Your task to perform on an android device: turn vacation reply on in the gmail app Image 0: 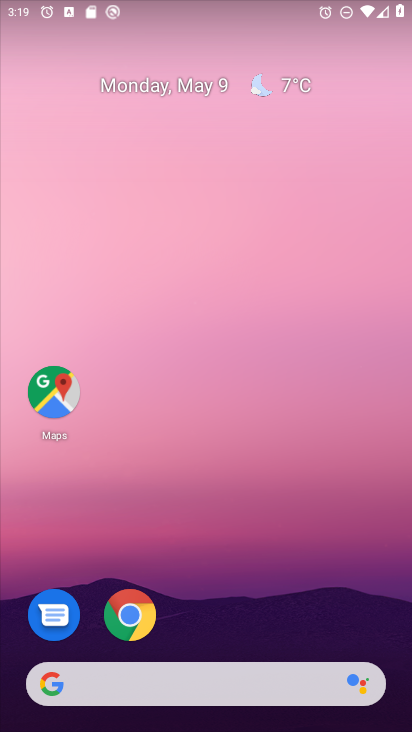
Step 0: drag from (366, 623) to (356, 62)
Your task to perform on an android device: turn vacation reply on in the gmail app Image 1: 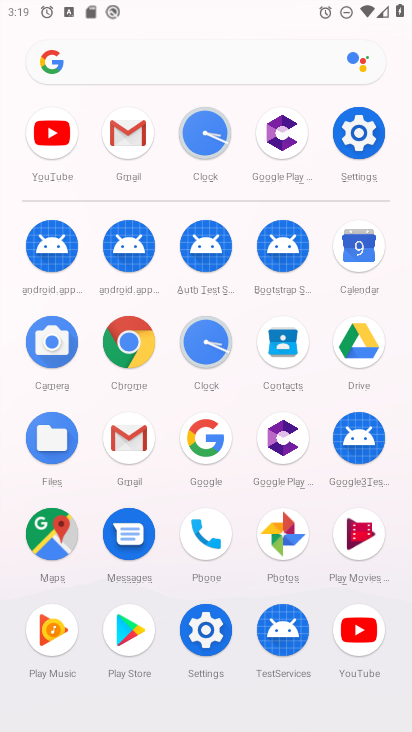
Step 1: click (128, 438)
Your task to perform on an android device: turn vacation reply on in the gmail app Image 2: 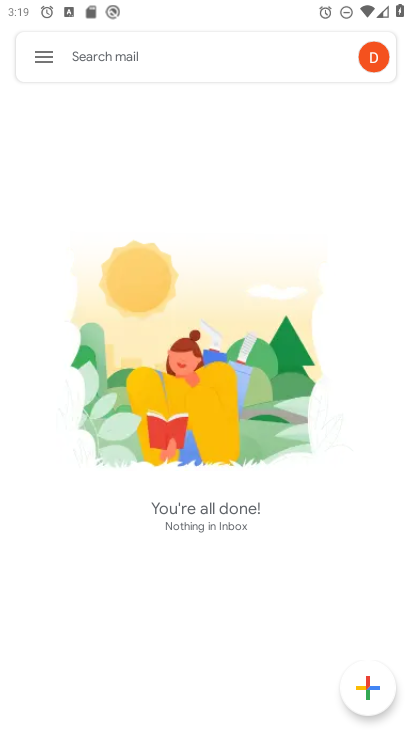
Step 2: click (36, 54)
Your task to perform on an android device: turn vacation reply on in the gmail app Image 3: 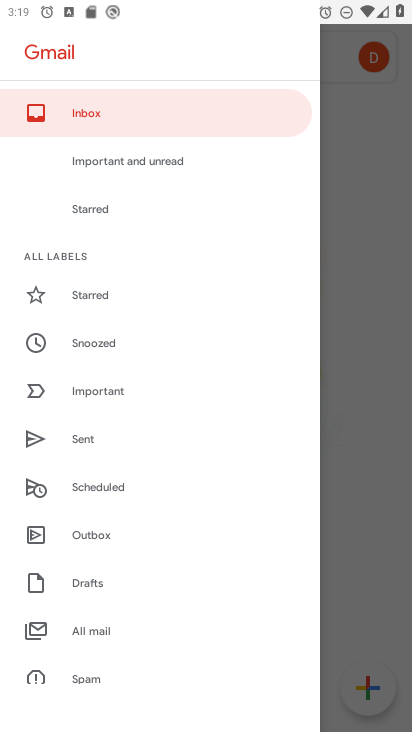
Step 3: drag from (169, 618) to (231, 261)
Your task to perform on an android device: turn vacation reply on in the gmail app Image 4: 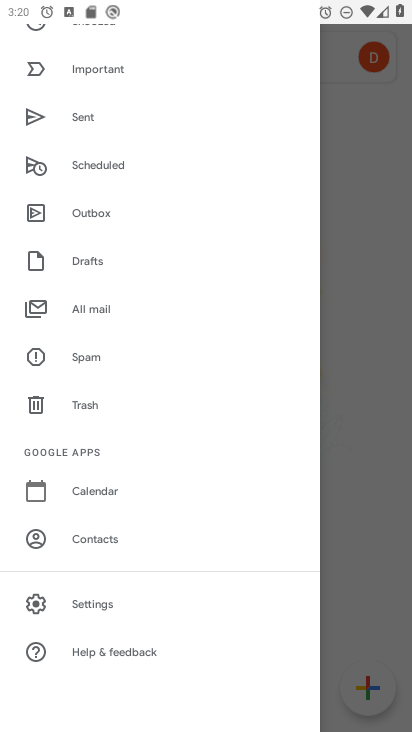
Step 4: click (72, 604)
Your task to perform on an android device: turn vacation reply on in the gmail app Image 5: 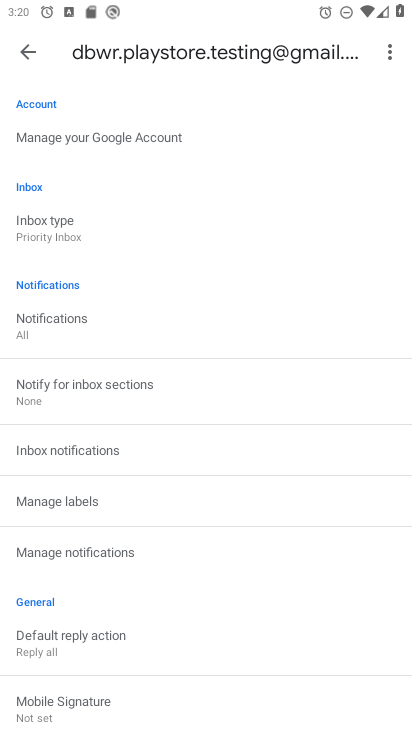
Step 5: drag from (200, 619) to (269, 178)
Your task to perform on an android device: turn vacation reply on in the gmail app Image 6: 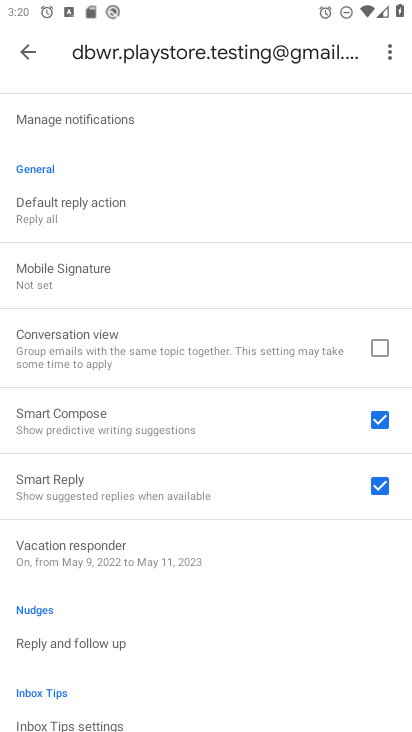
Step 6: click (98, 548)
Your task to perform on an android device: turn vacation reply on in the gmail app Image 7: 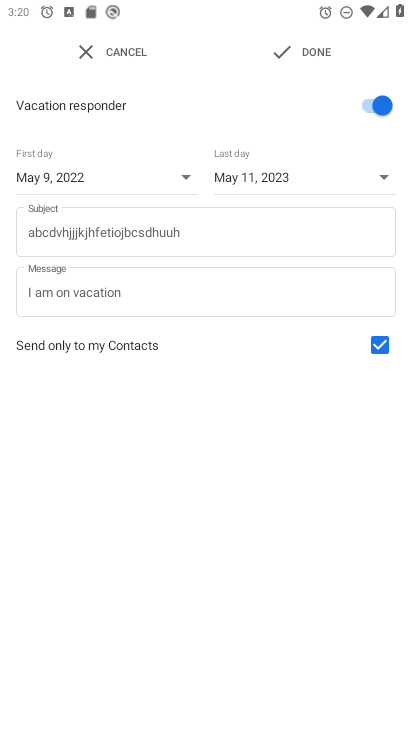
Step 7: task complete